Your task to perform on an android device: Add bose soundlink mini to the cart on ebay.com Image 0: 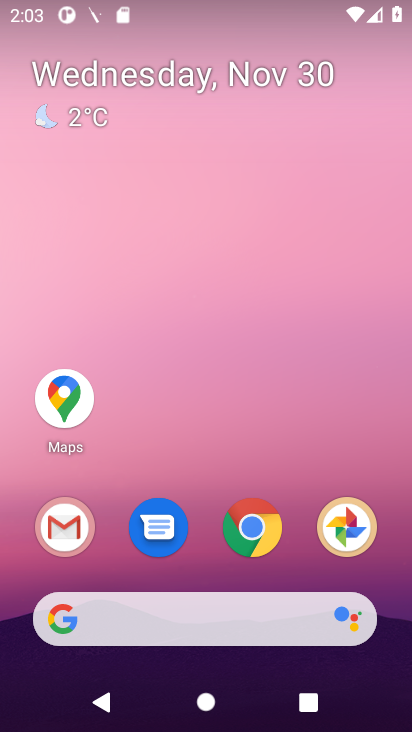
Step 0: click (248, 533)
Your task to perform on an android device: Add bose soundlink mini to the cart on ebay.com Image 1: 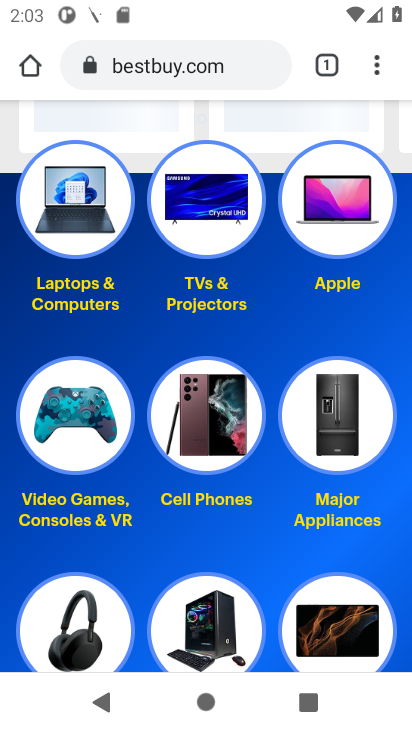
Step 1: click (223, 634)
Your task to perform on an android device: Add bose soundlink mini to the cart on ebay.com Image 2: 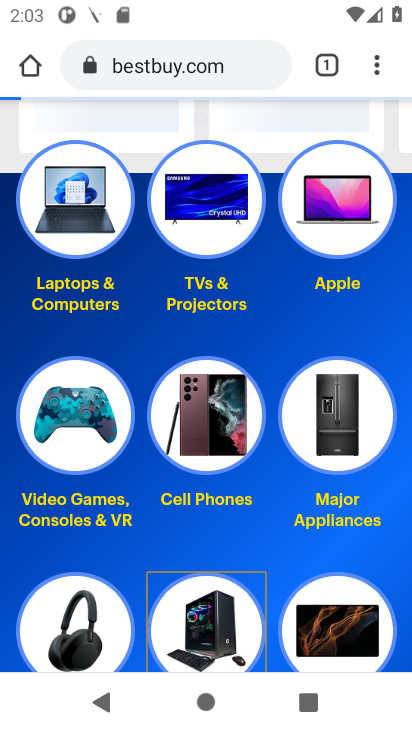
Step 2: task complete